Your task to perform on an android device: Open Wikipedia Image 0: 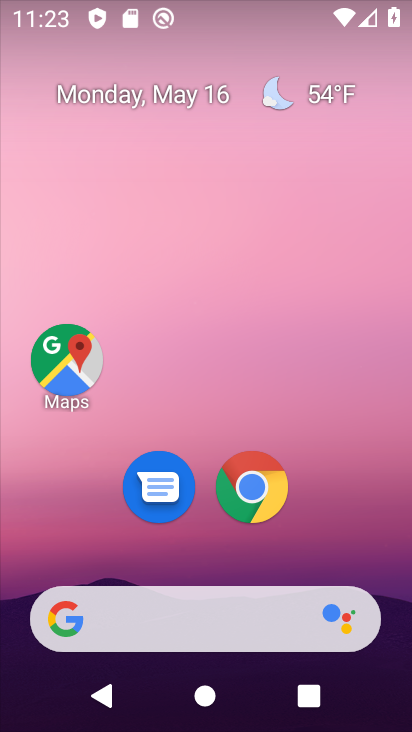
Step 0: click (265, 496)
Your task to perform on an android device: Open Wikipedia Image 1: 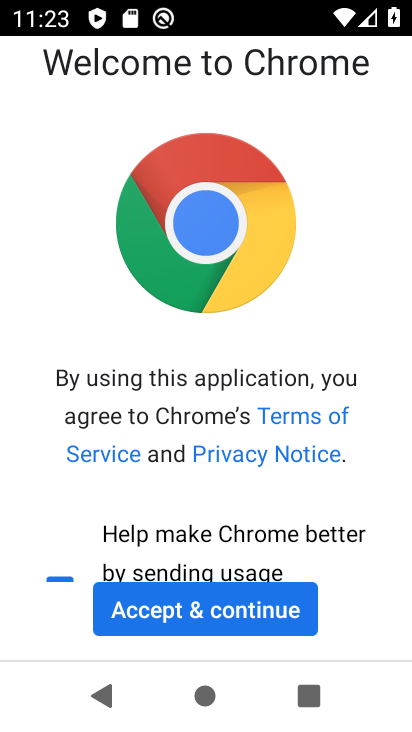
Step 1: click (181, 609)
Your task to perform on an android device: Open Wikipedia Image 2: 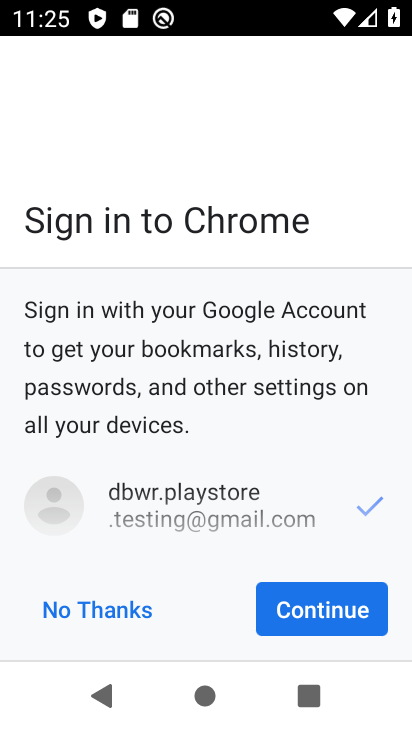
Step 2: click (312, 609)
Your task to perform on an android device: Open Wikipedia Image 3: 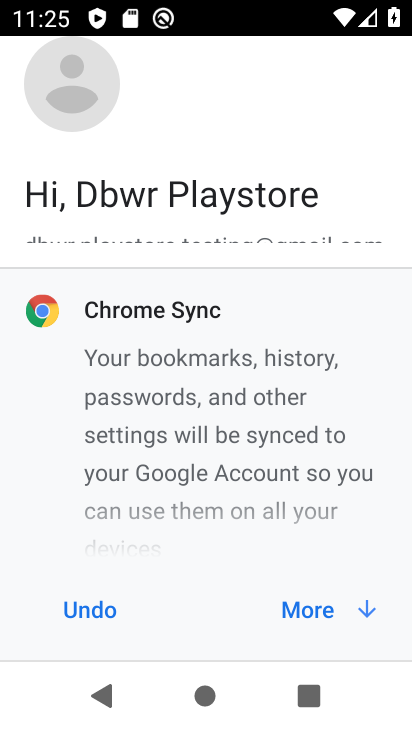
Step 3: click (306, 613)
Your task to perform on an android device: Open Wikipedia Image 4: 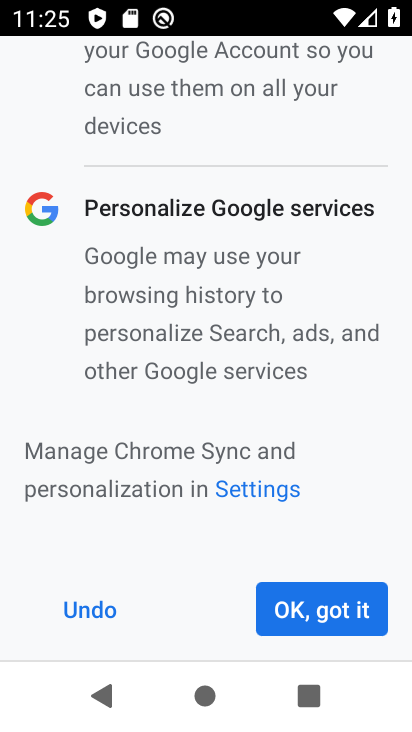
Step 4: click (320, 620)
Your task to perform on an android device: Open Wikipedia Image 5: 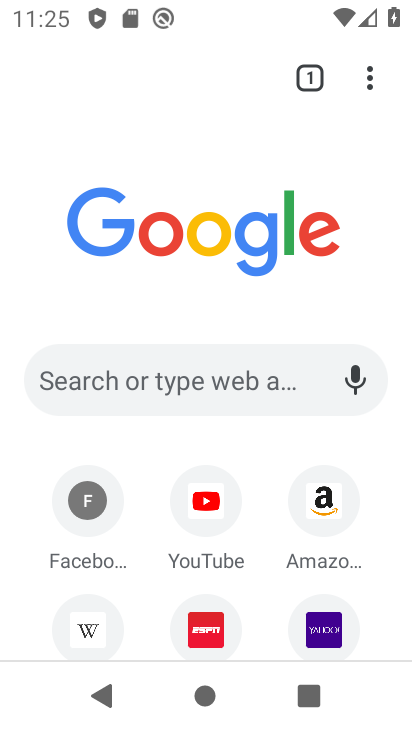
Step 5: click (94, 628)
Your task to perform on an android device: Open Wikipedia Image 6: 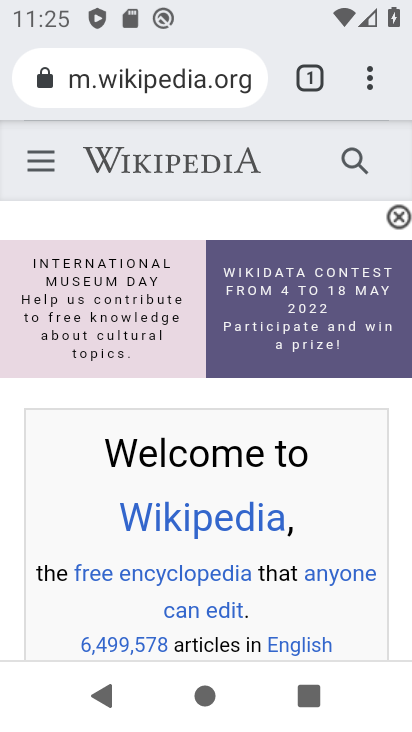
Step 6: task complete